Your task to perform on an android device: empty trash in the gmail app Image 0: 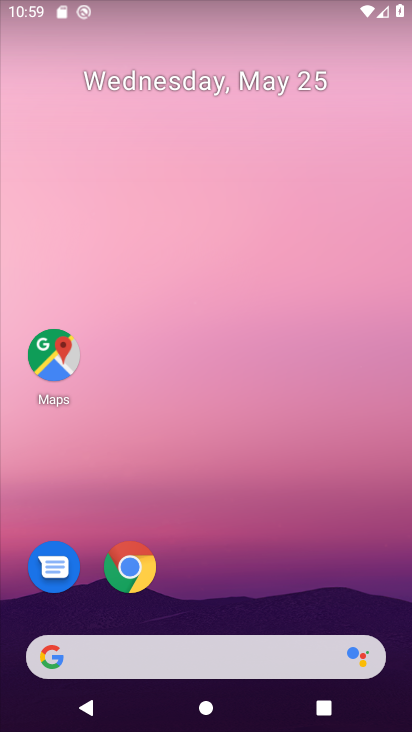
Step 0: drag from (305, 251) to (285, 30)
Your task to perform on an android device: empty trash in the gmail app Image 1: 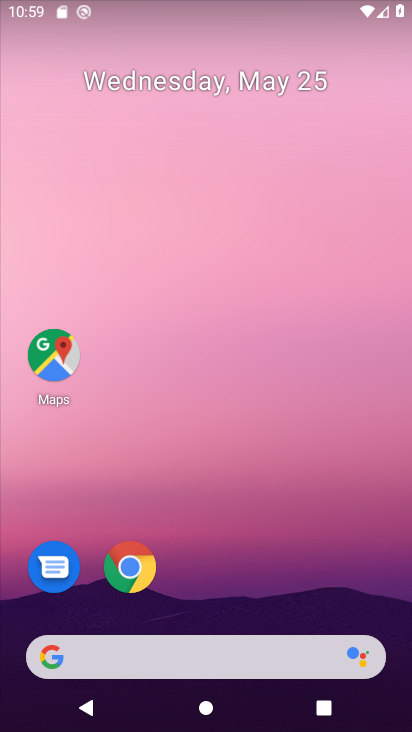
Step 1: drag from (242, 590) to (229, 110)
Your task to perform on an android device: empty trash in the gmail app Image 2: 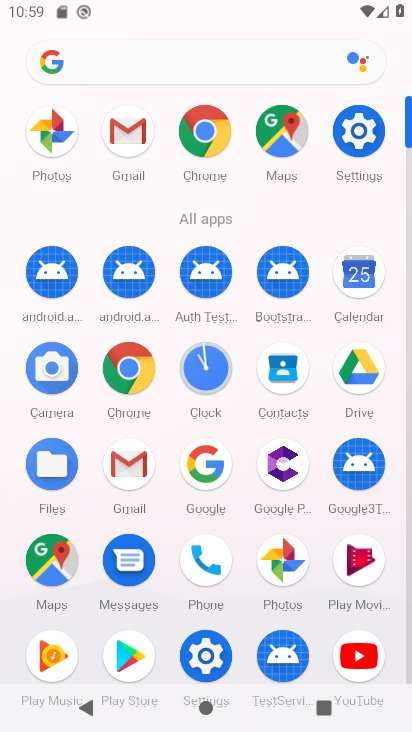
Step 2: click (129, 131)
Your task to perform on an android device: empty trash in the gmail app Image 3: 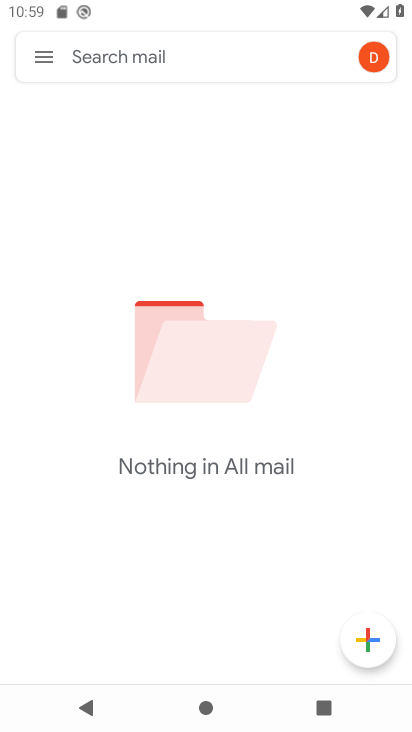
Step 3: click (45, 57)
Your task to perform on an android device: empty trash in the gmail app Image 4: 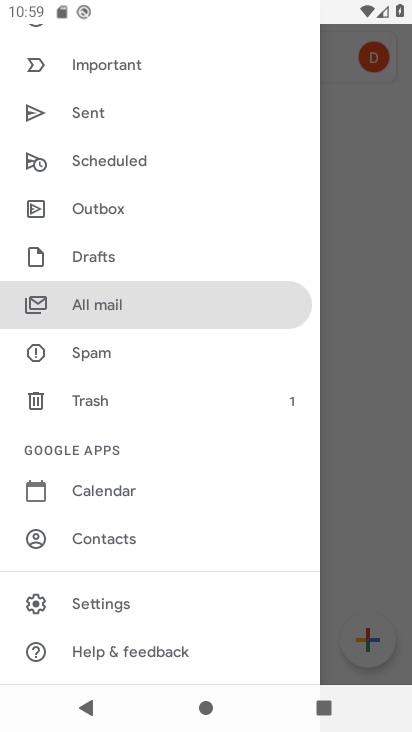
Step 4: click (87, 397)
Your task to perform on an android device: empty trash in the gmail app Image 5: 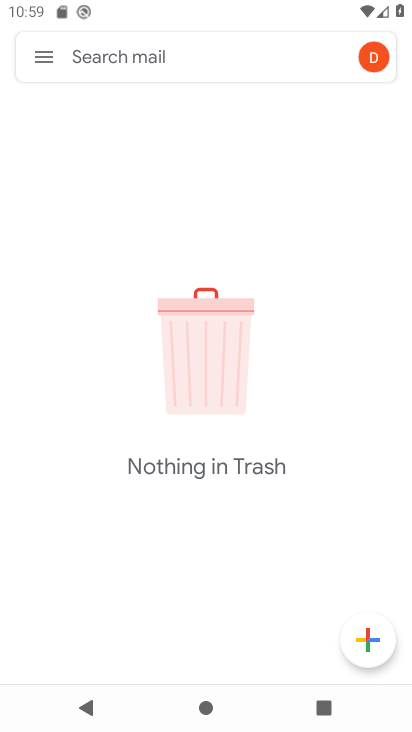
Step 5: task complete